Your task to perform on an android device: check data usage Image 0: 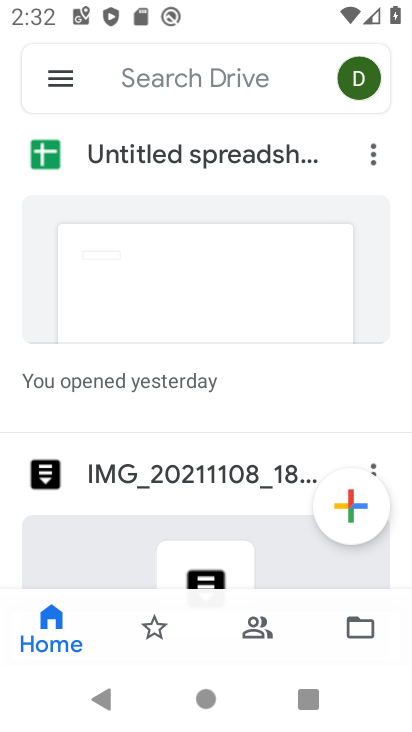
Step 0: press home button
Your task to perform on an android device: check data usage Image 1: 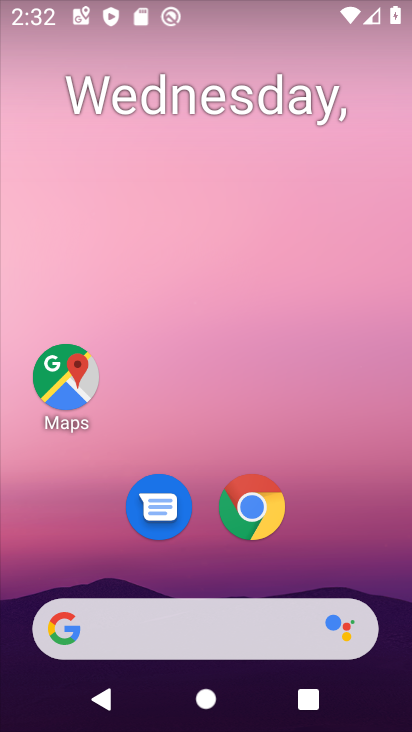
Step 1: drag from (306, 518) to (326, 39)
Your task to perform on an android device: check data usage Image 2: 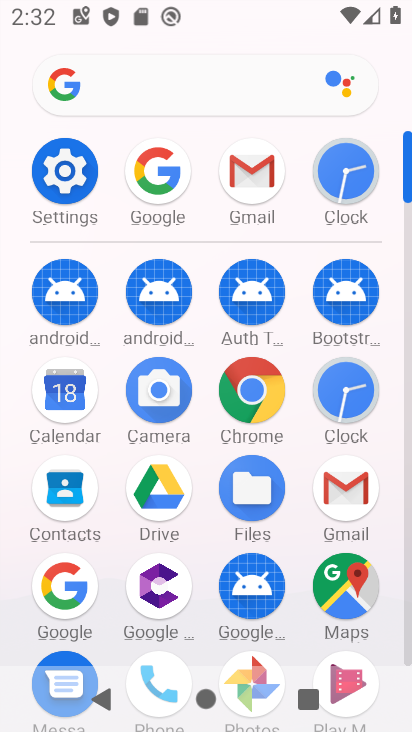
Step 2: click (74, 170)
Your task to perform on an android device: check data usage Image 3: 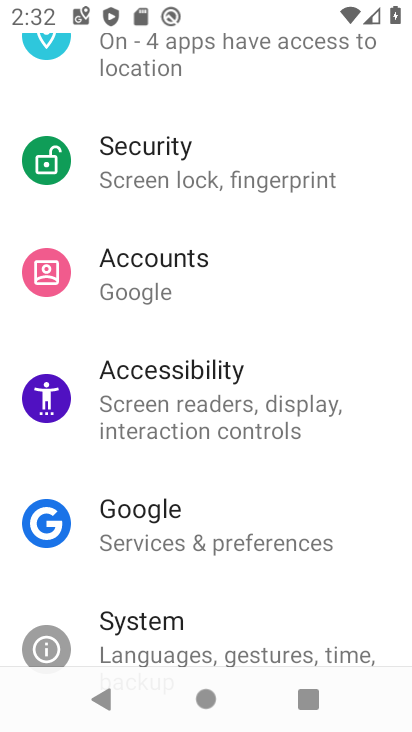
Step 3: drag from (283, 221) to (254, 577)
Your task to perform on an android device: check data usage Image 4: 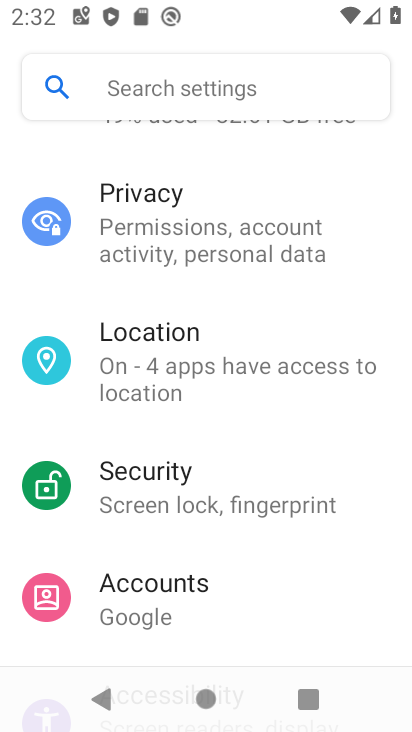
Step 4: click (260, 72)
Your task to perform on an android device: check data usage Image 5: 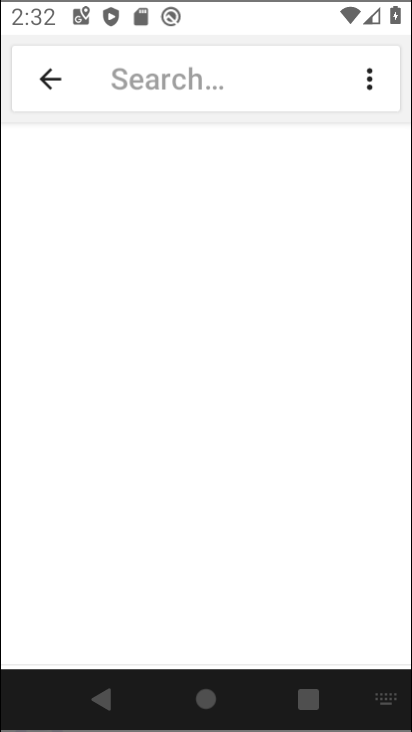
Step 5: drag from (292, 190) to (310, 450)
Your task to perform on an android device: check data usage Image 6: 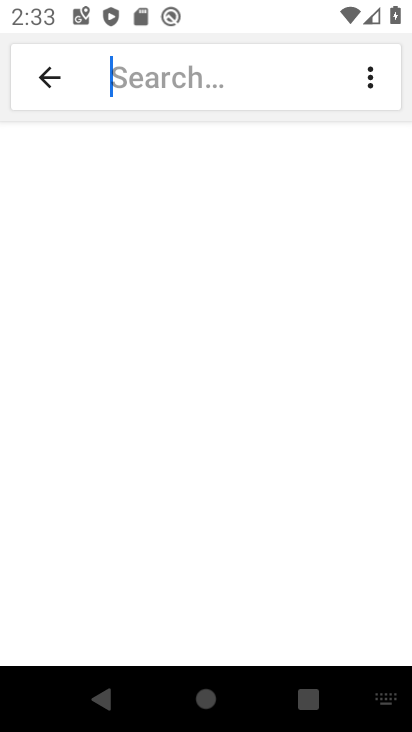
Step 6: press back button
Your task to perform on an android device: check data usage Image 7: 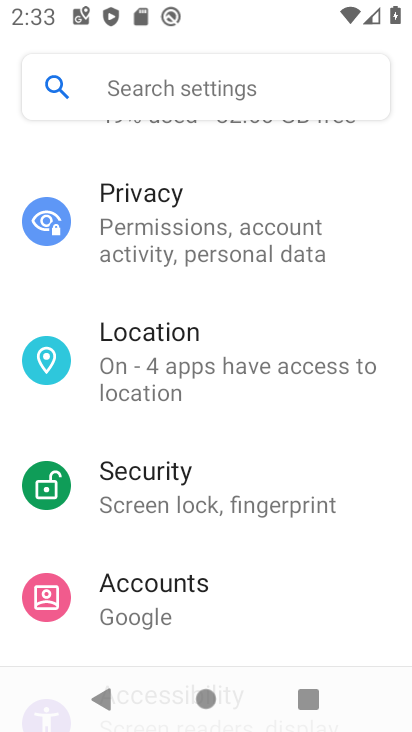
Step 7: drag from (141, 175) to (197, 562)
Your task to perform on an android device: check data usage Image 8: 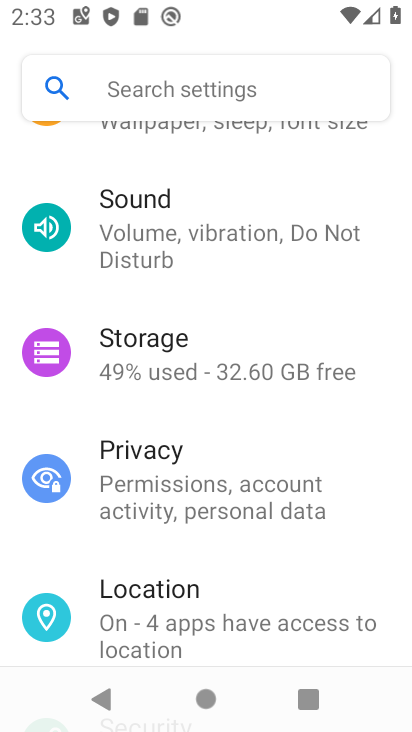
Step 8: drag from (242, 274) to (251, 562)
Your task to perform on an android device: check data usage Image 9: 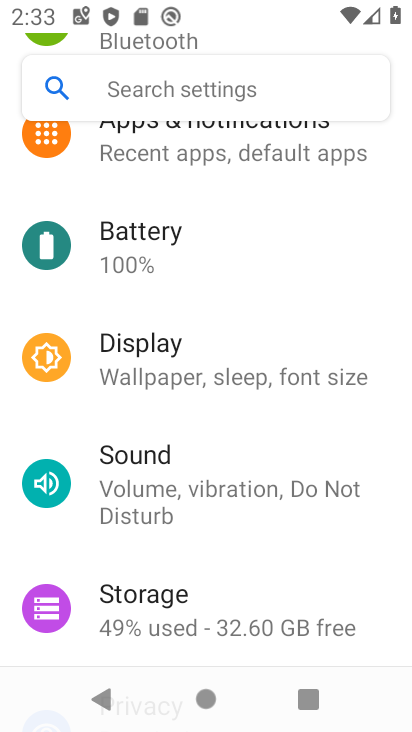
Step 9: drag from (306, 283) to (340, 515)
Your task to perform on an android device: check data usage Image 10: 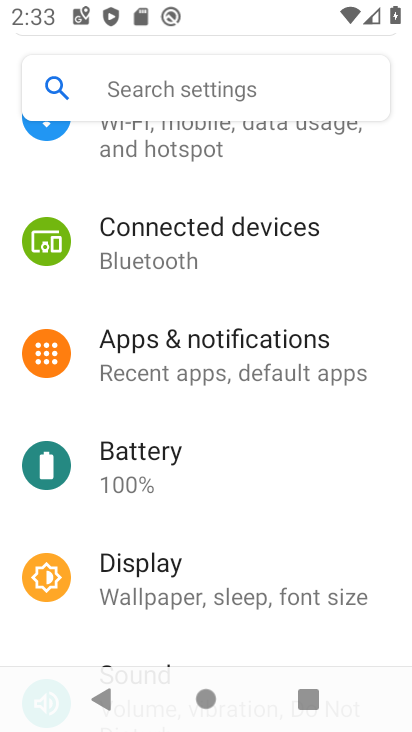
Step 10: drag from (202, 189) to (229, 435)
Your task to perform on an android device: check data usage Image 11: 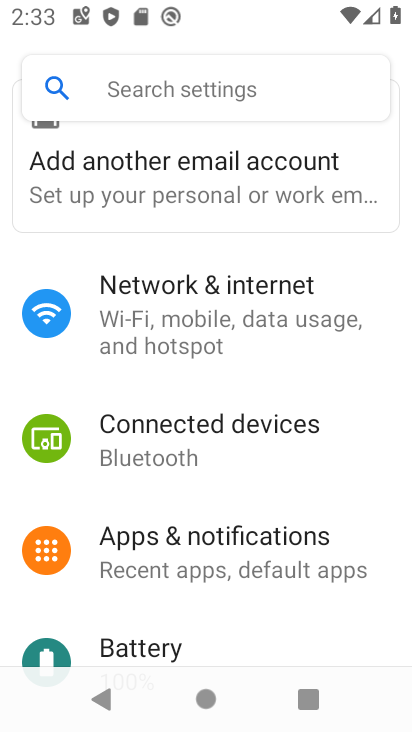
Step 11: click (244, 278)
Your task to perform on an android device: check data usage Image 12: 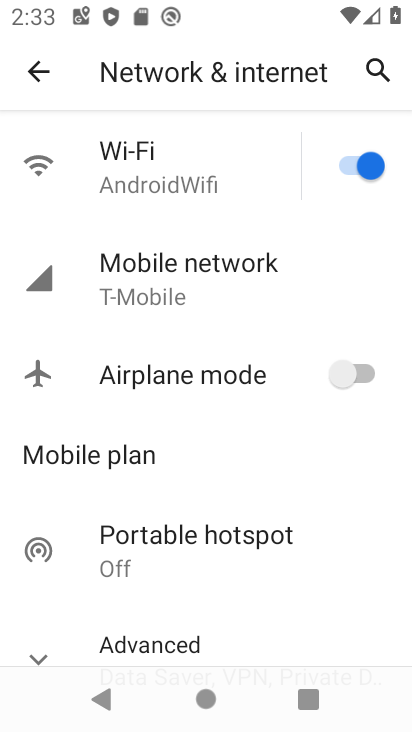
Step 12: drag from (192, 426) to (190, 67)
Your task to perform on an android device: check data usage Image 13: 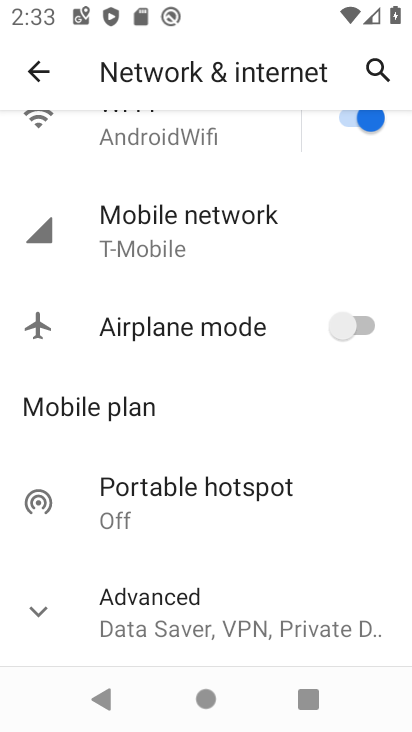
Step 13: click (156, 564)
Your task to perform on an android device: check data usage Image 14: 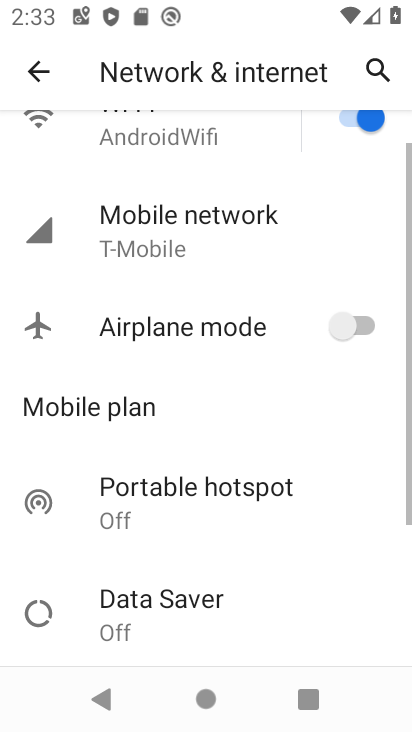
Step 14: drag from (241, 640) to (287, 97)
Your task to perform on an android device: check data usage Image 15: 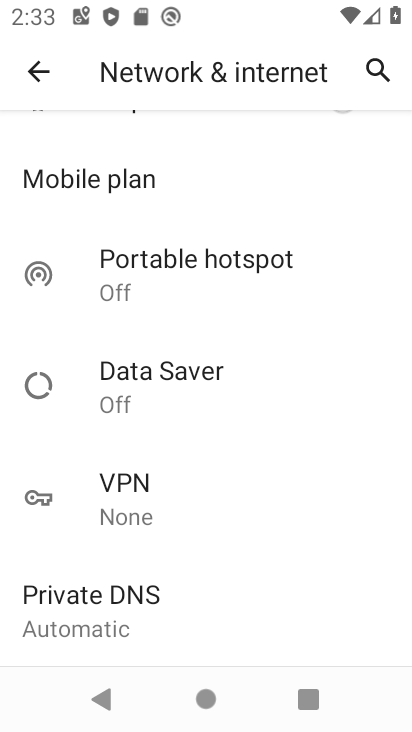
Step 15: drag from (242, 184) to (255, 515)
Your task to perform on an android device: check data usage Image 16: 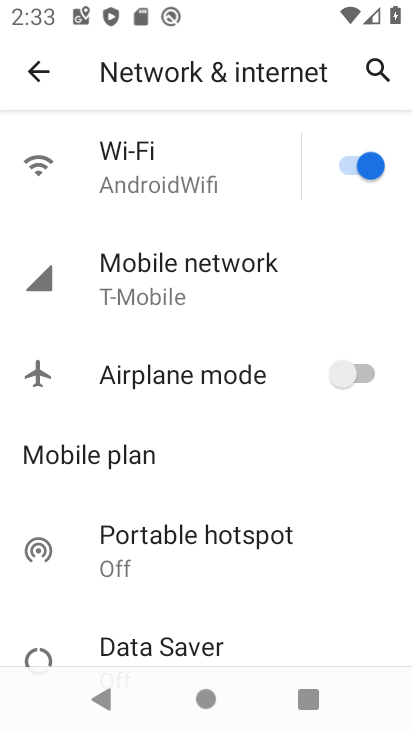
Step 16: click (256, 276)
Your task to perform on an android device: check data usage Image 17: 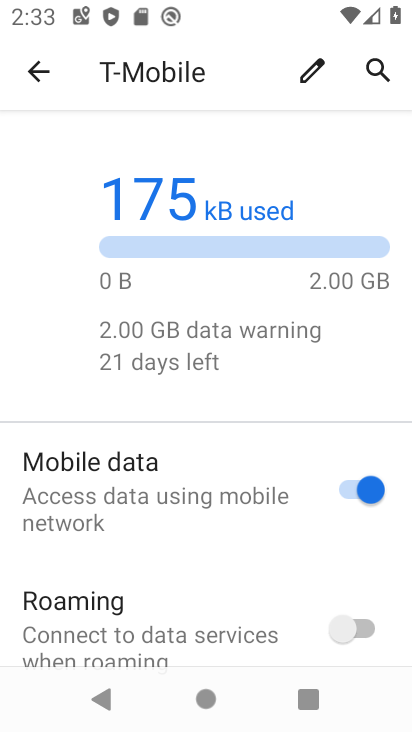
Step 17: task complete